Your task to perform on an android device: Search for the best rated Bluetooth earbuds on Ali express Image 0: 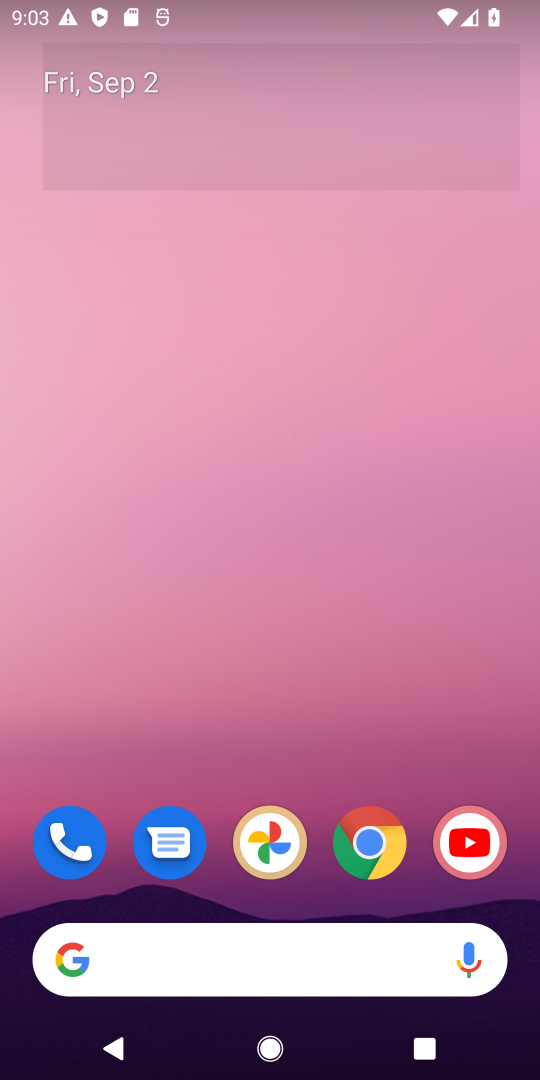
Step 0: drag from (292, 249) to (312, 124)
Your task to perform on an android device: Search for the best rated Bluetooth earbuds on Ali express Image 1: 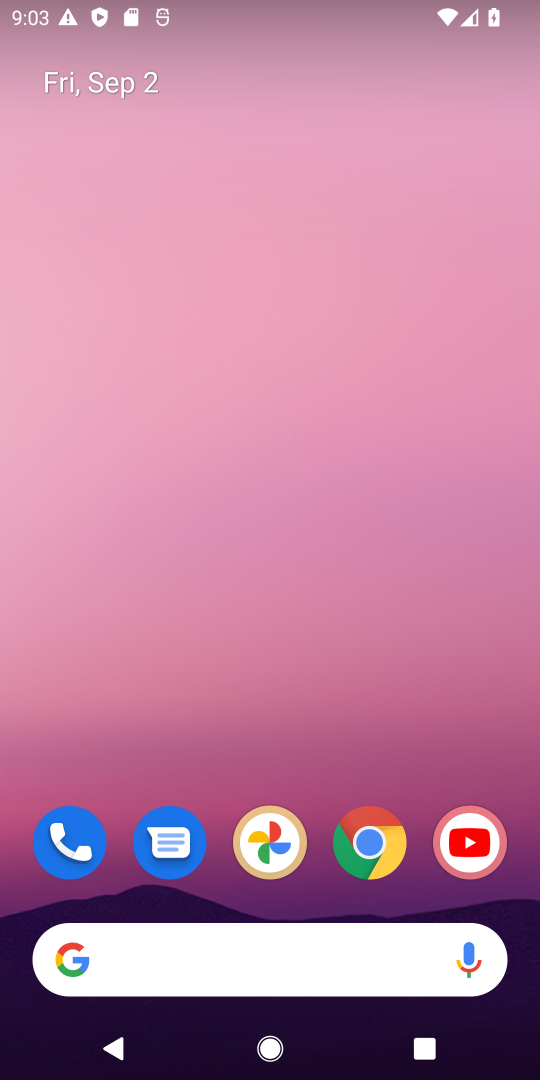
Step 1: drag from (308, 897) to (335, 155)
Your task to perform on an android device: Search for the best rated Bluetooth earbuds on Ali express Image 2: 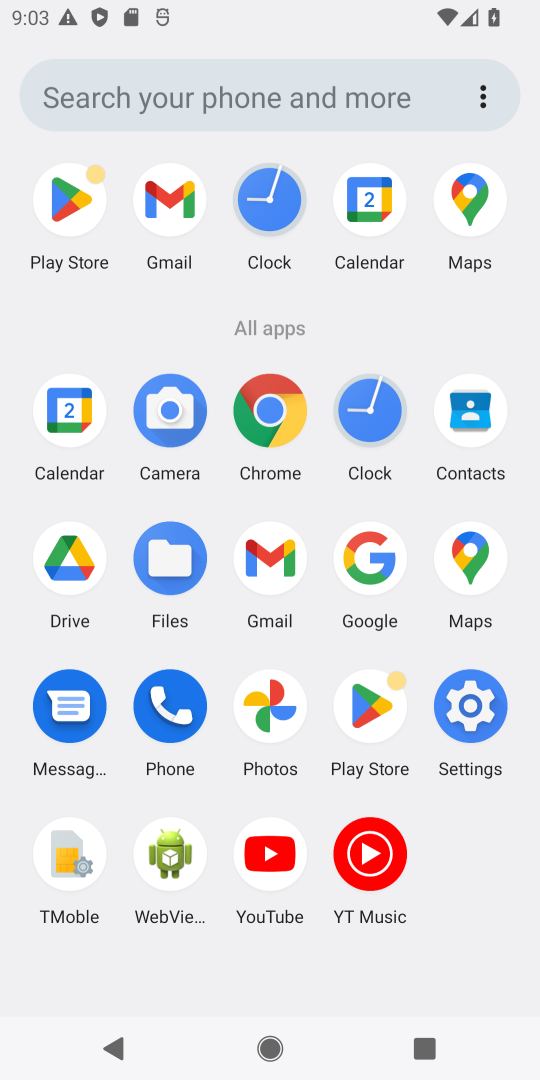
Step 2: click (270, 428)
Your task to perform on an android device: Search for the best rated Bluetooth earbuds on Ali express Image 3: 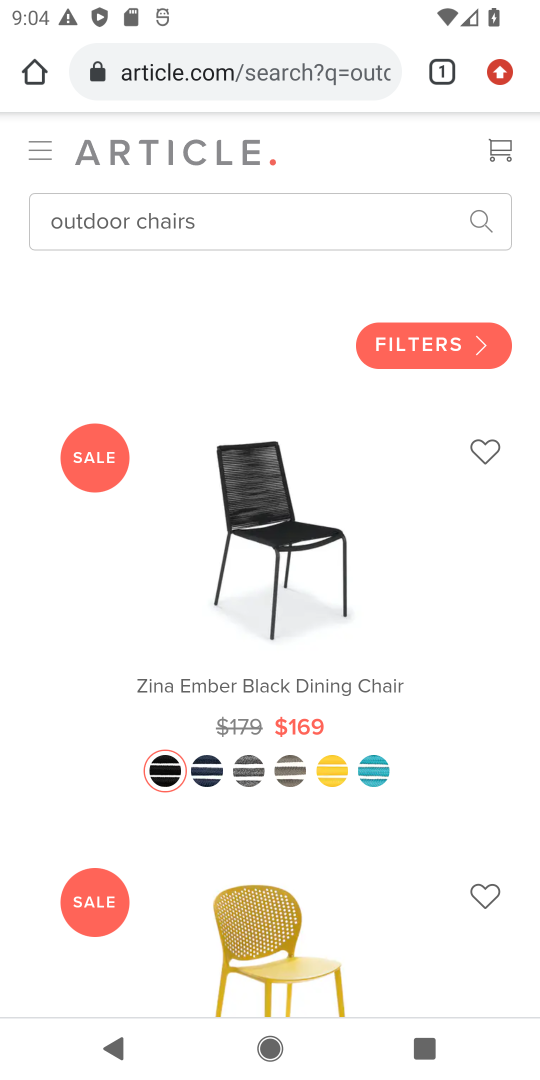
Step 3: click (352, 82)
Your task to perform on an android device: Search for the best rated Bluetooth earbuds on Ali express Image 4: 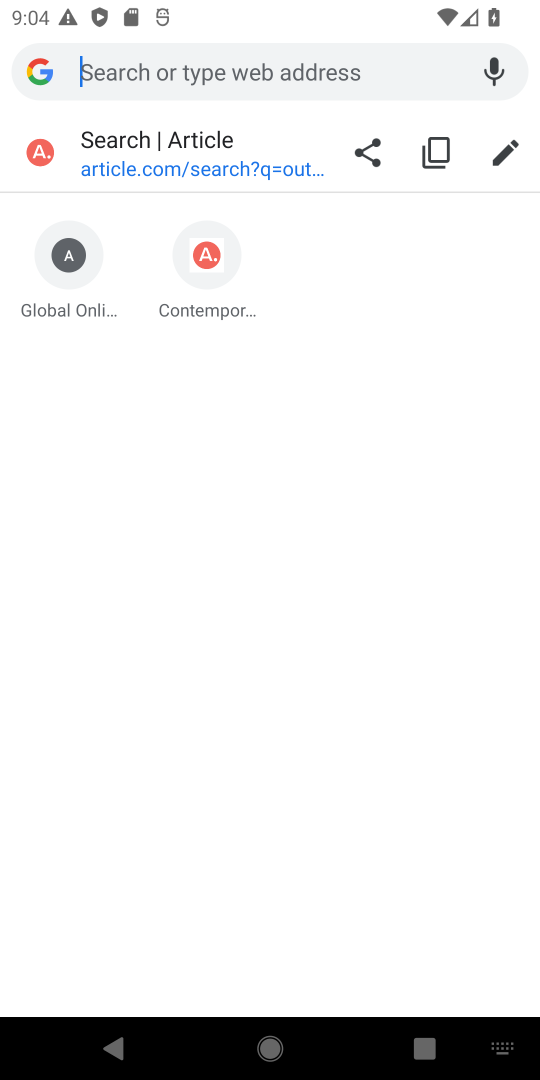
Step 4: press enter
Your task to perform on an android device: Search for the best rated Bluetooth earbuds on Ali express Image 5: 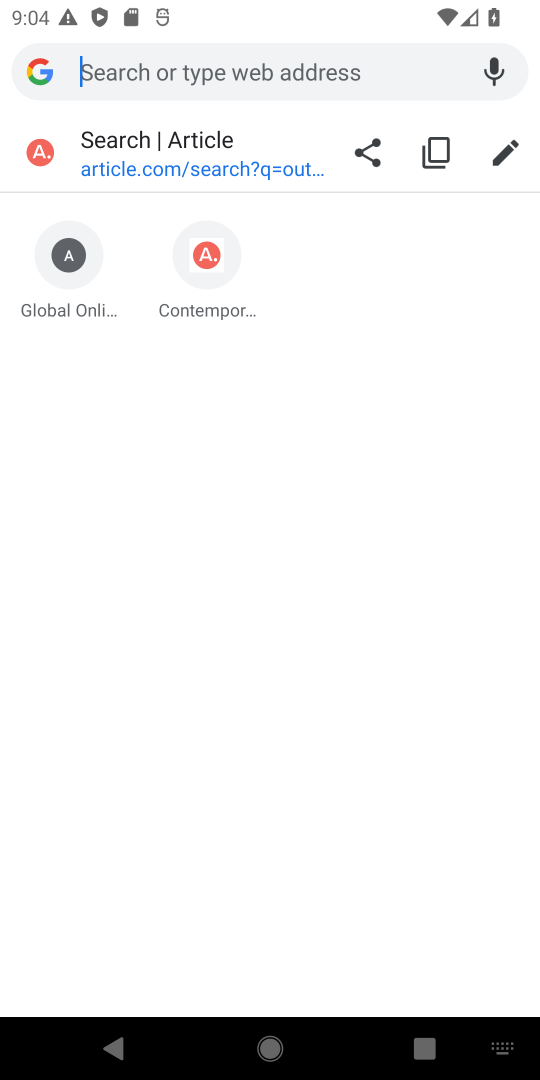
Step 5: type "Ali express"
Your task to perform on an android device: Search for the best rated Bluetooth earbuds on Ali express Image 6: 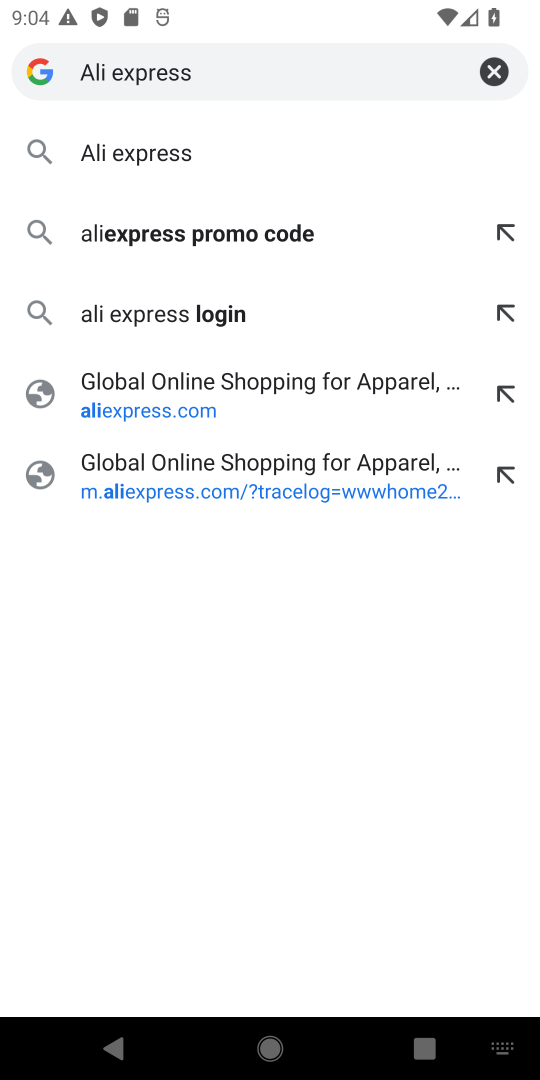
Step 6: click (132, 141)
Your task to perform on an android device: Search for the best rated Bluetooth earbuds on Ali express Image 7: 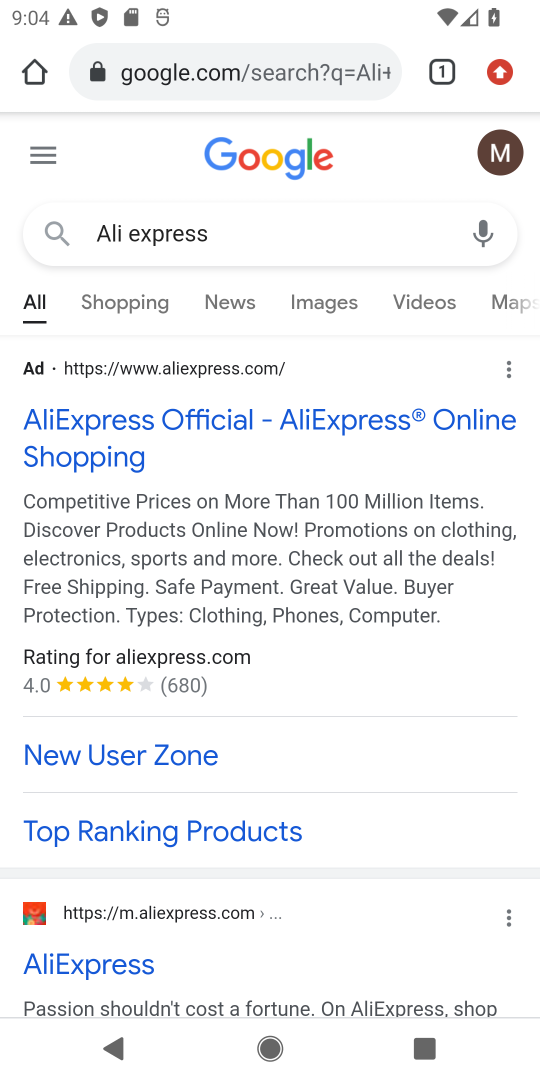
Step 7: drag from (213, 507) to (229, 445)
Your task to perform on an android device: Search for the best rated Bluetooth earbuds on Ali express Image 8: 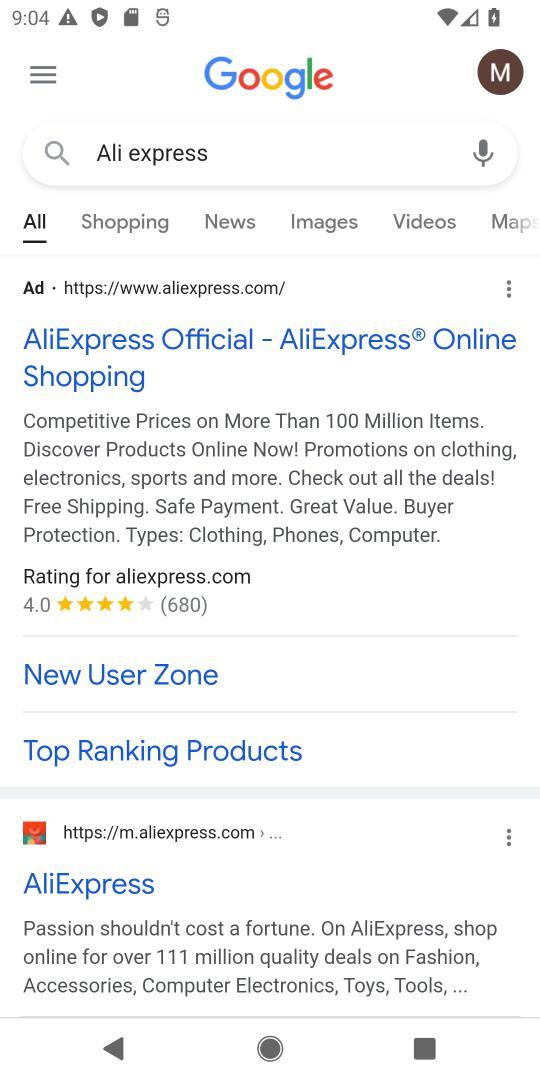
Step 8: click (67, 876)
Your task to perform on an android device: Search for the best rated Bluetooth earbuds on Ali express Image 9: 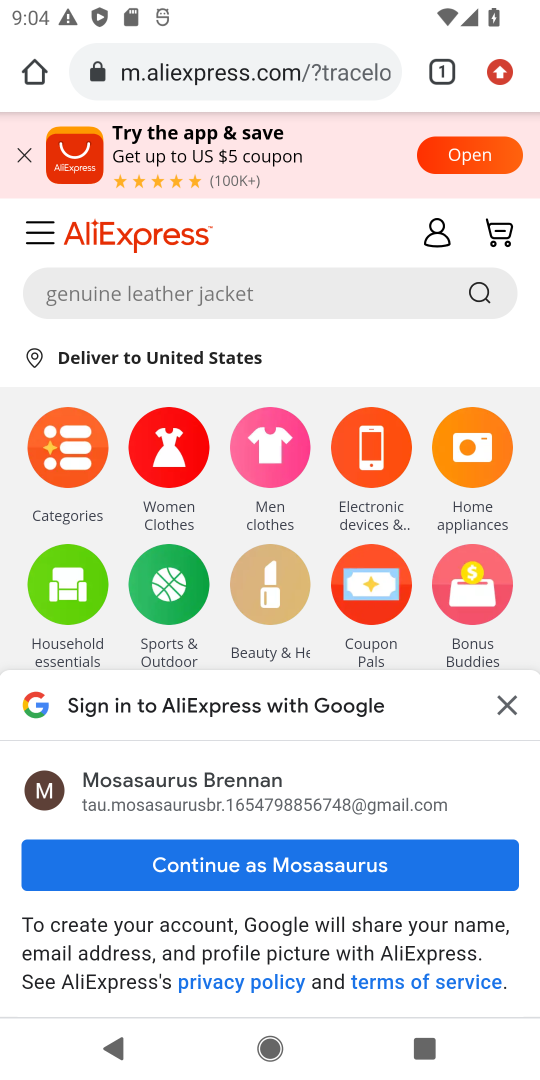
Step 9: click (230, 295)
Your task to perform on an android device: Search for the best rated Bluetooth earbuds on Ali express Image 10: 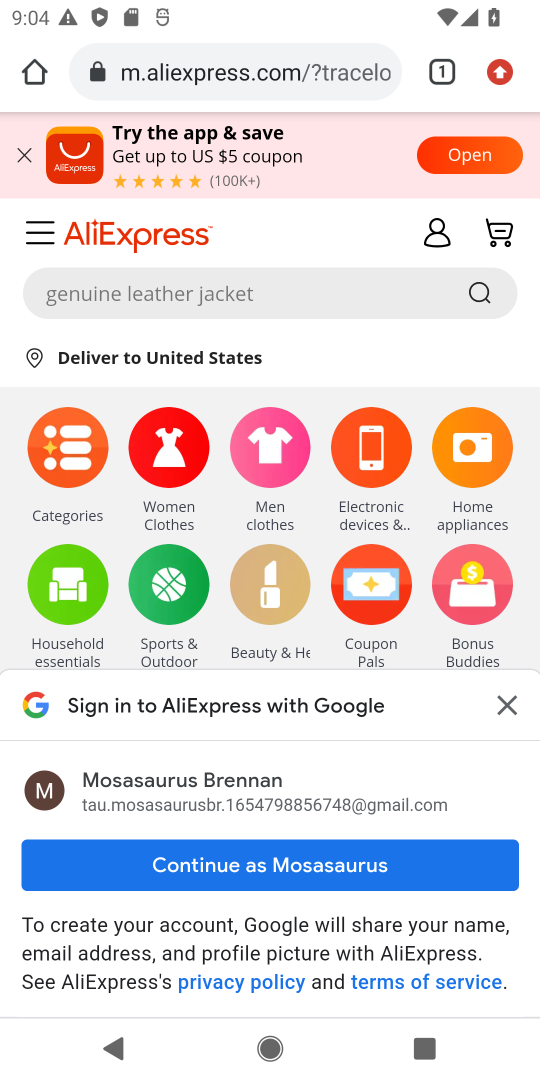
Step 10: type "best rated Bluetooth"
Your task to perform on an android device: Search for the best rated Bluetooth earbuds on Ali express Image 11: 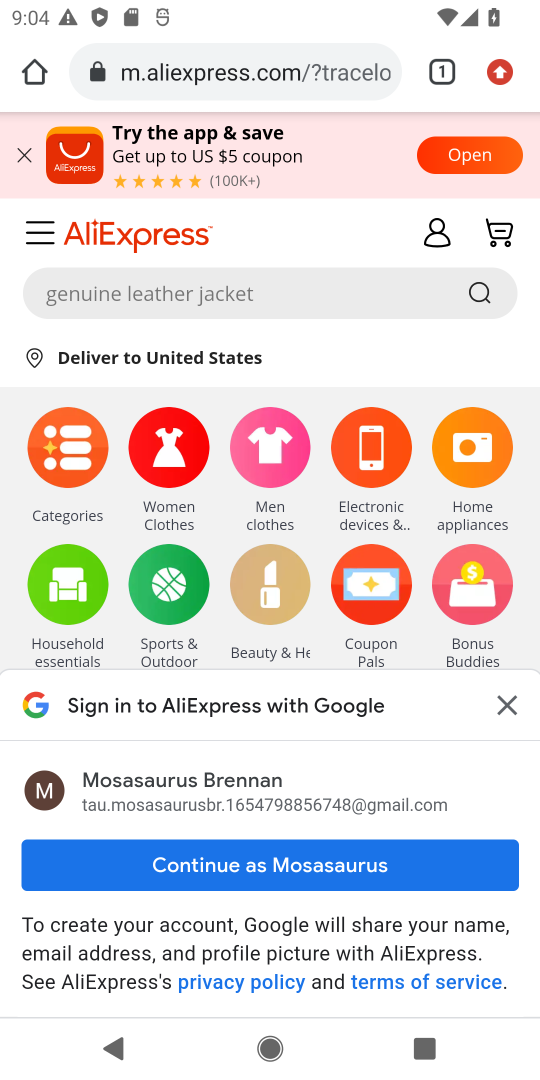
Step 11: click (364, 298)
Your task to perform on an android device: Search for the best rated Bluetooth earbuds on Ali express Image 12: 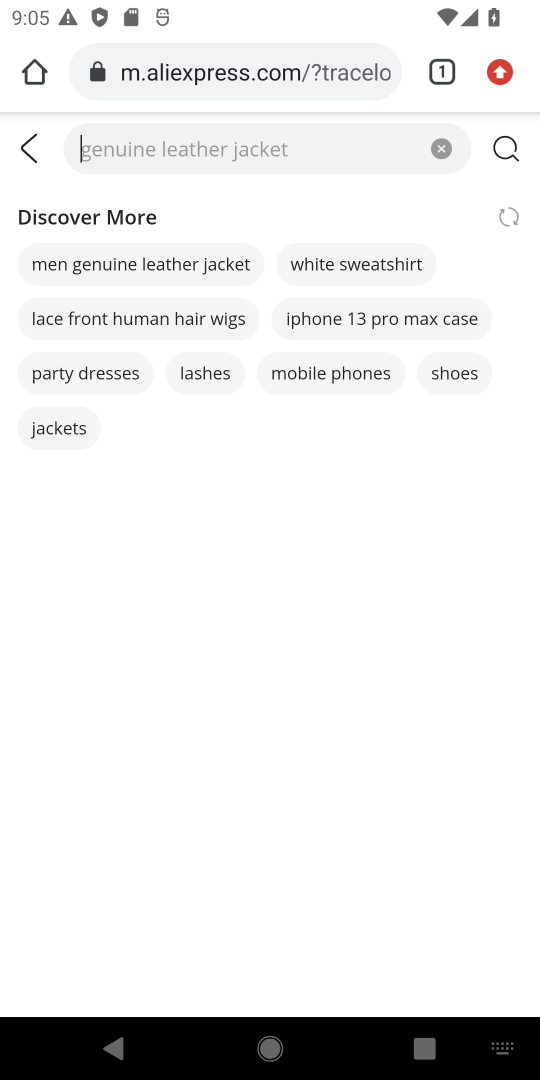
Step 12: type "best rated Bluetooth"
Your task to perform on an android device: Search for the best rated Bluetooth earbuds on Ali express Image 13: 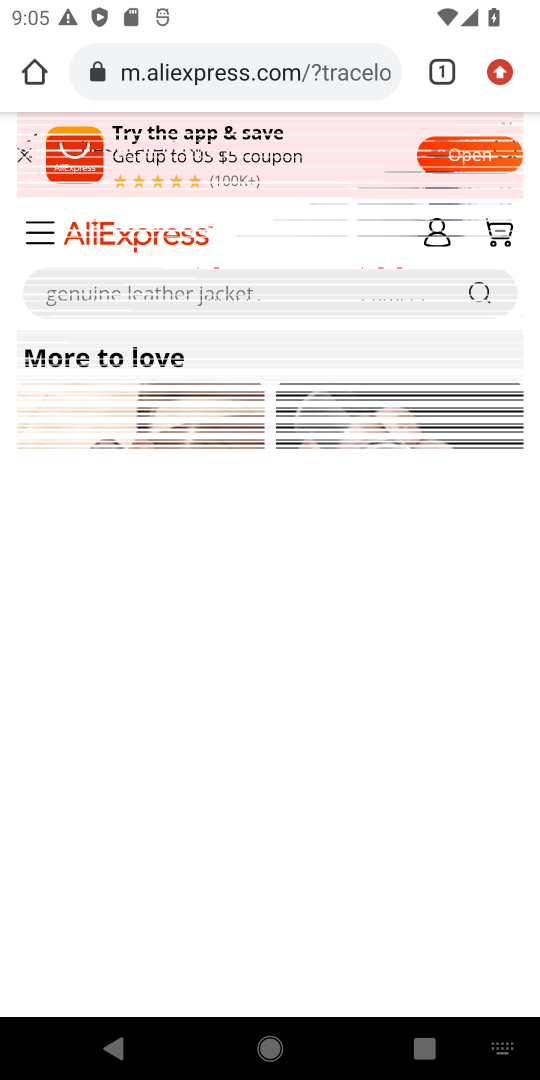
Step 13: press enter
Your task to perform on an android device: Search for the best rated Bluetooth earbuds on Ali express Image 14: 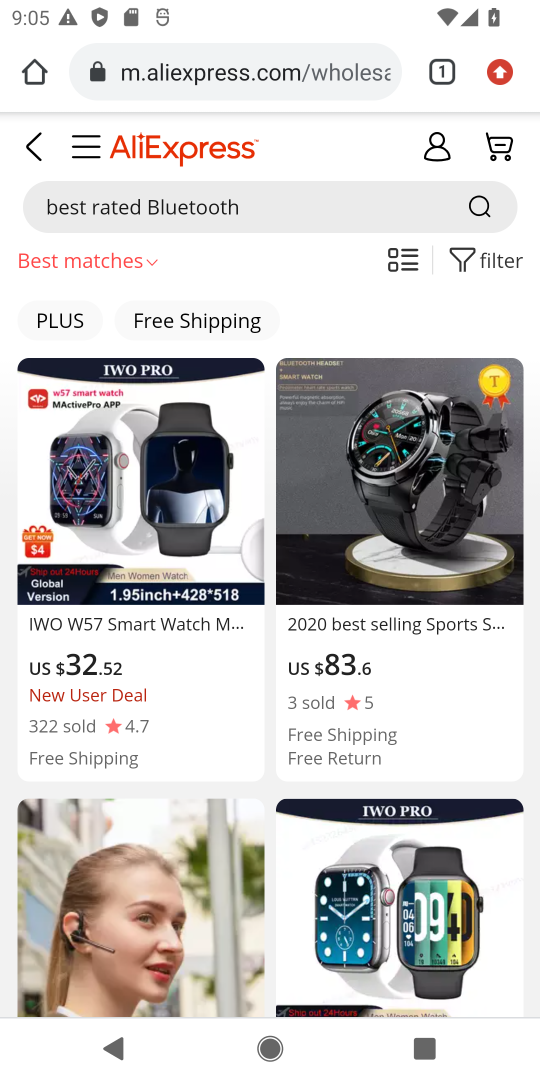
Step 14: task complete